Your task to perform on an android device: Go to network settings Image 0: 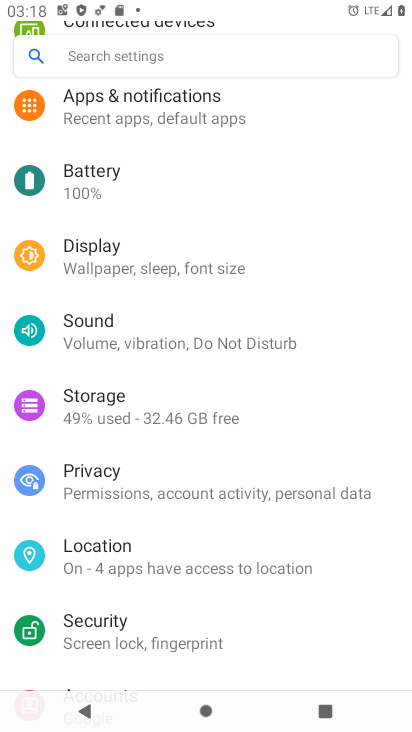
Step 0: press home button
Your task to perform on an android device: Go to network settings Image 1: 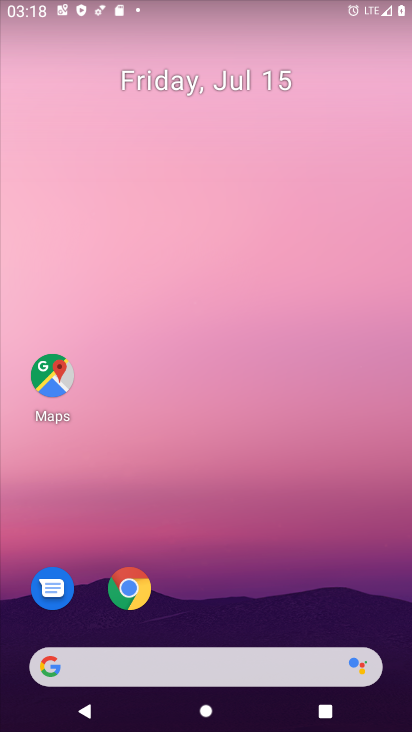
Step 1: drag from (242, 667) to (297, 170)
Your task to perform on an android device: Go to network settings Image 2: 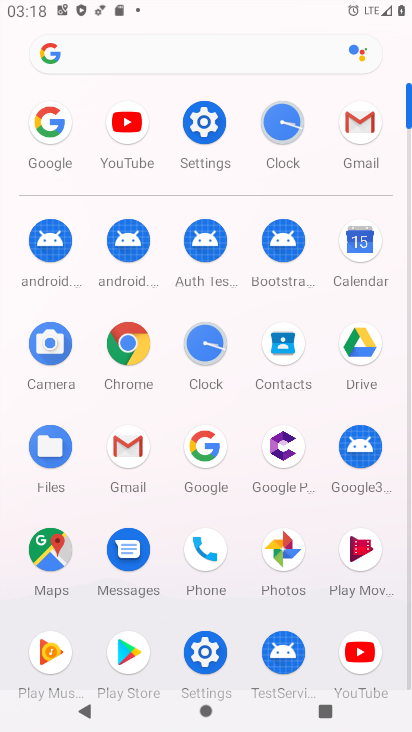
Step 2: click (204, 120)
Your task to perform on an android device: Go to network settings Image 3: 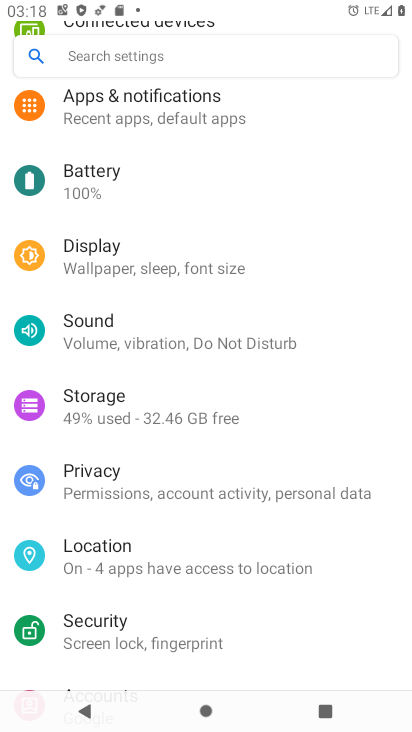
Step 3: drag from (160, 159) to (175, 434)
Your task to perform on an android device: Go to network settings Image 4: 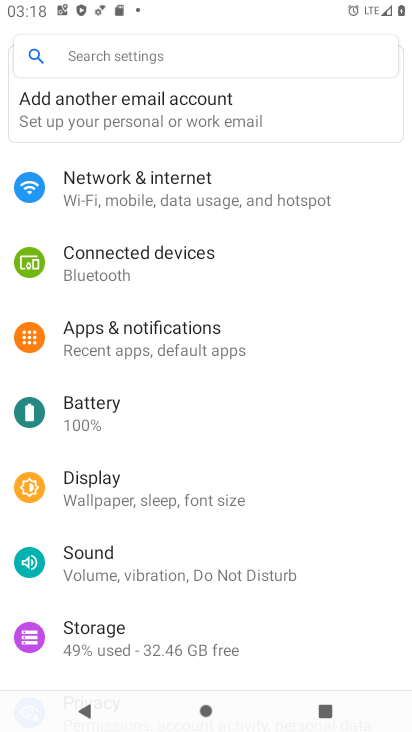
Step 4: click (167, 193)
Your task to perform on an android device: Go to network settings Image 5: 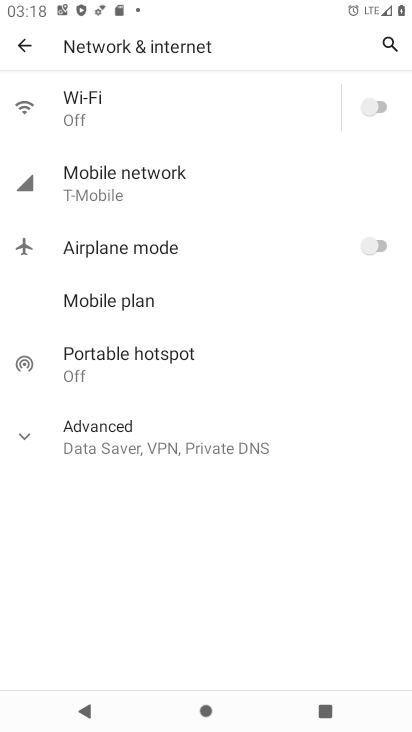
Step 5: task complete